Your task to perform on an android device: Search for good pizza restaurants on Maps Image 0: 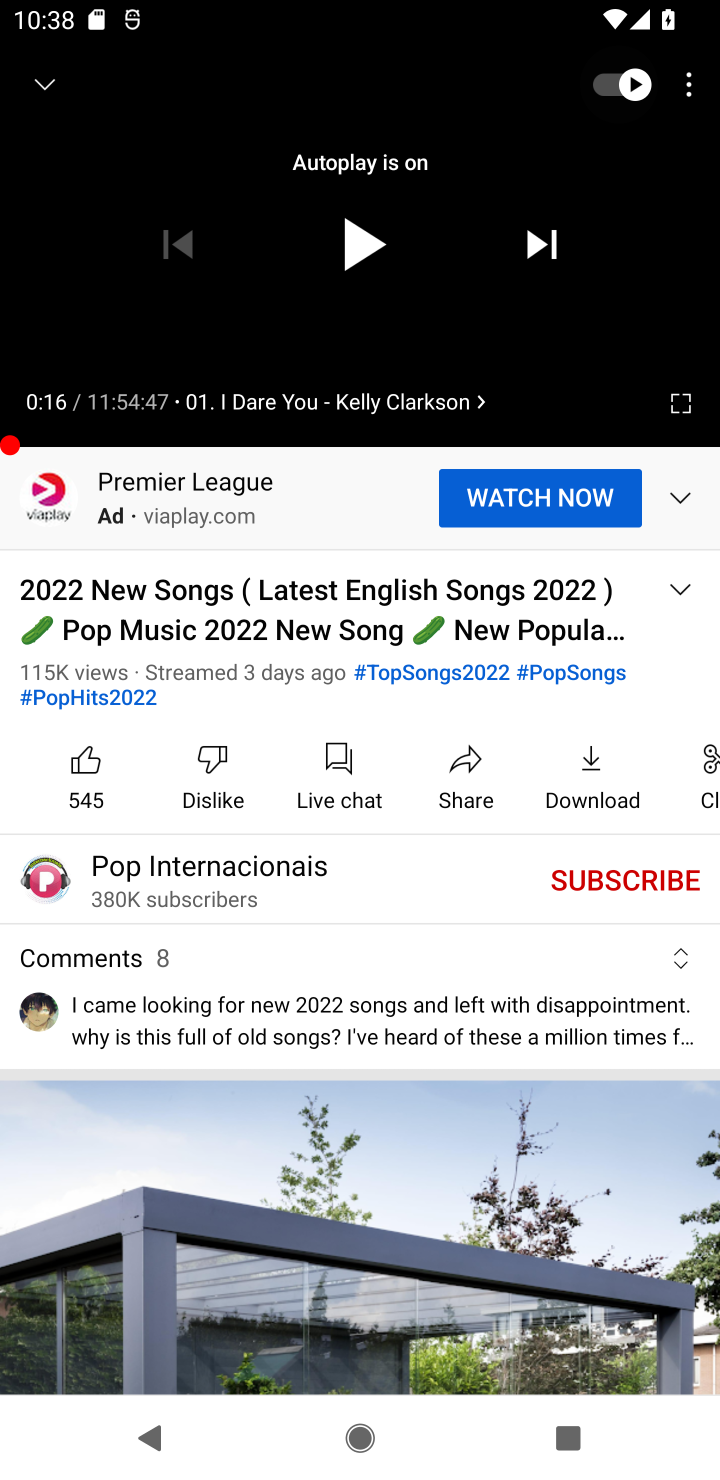
Step 0: press home button
Your task to perform on an android device: Search for good pizza restaurants on Maps Image 1: 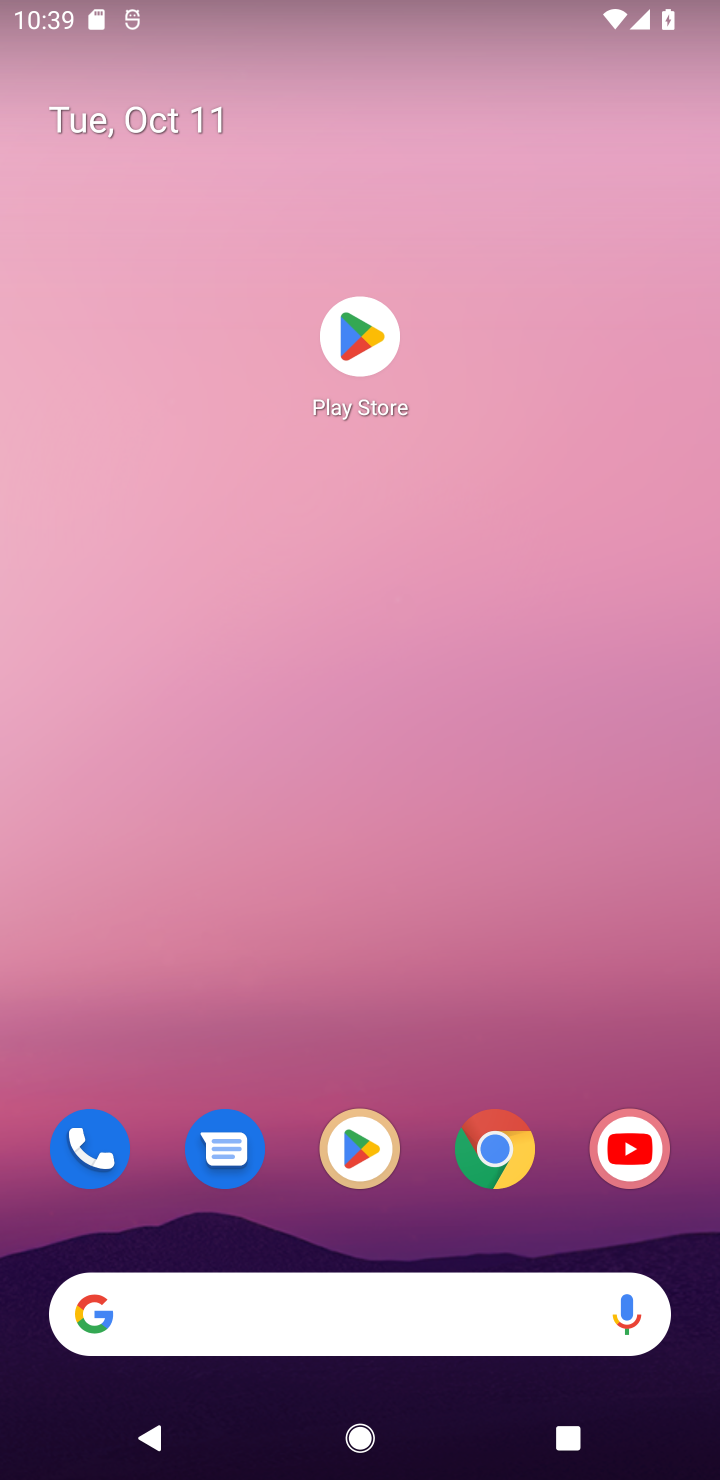
Step 1: drag from (343, 1155) to (413, 109)
Your task to perform on an android device: Search for good pizza restaurants on Maps Image 2: 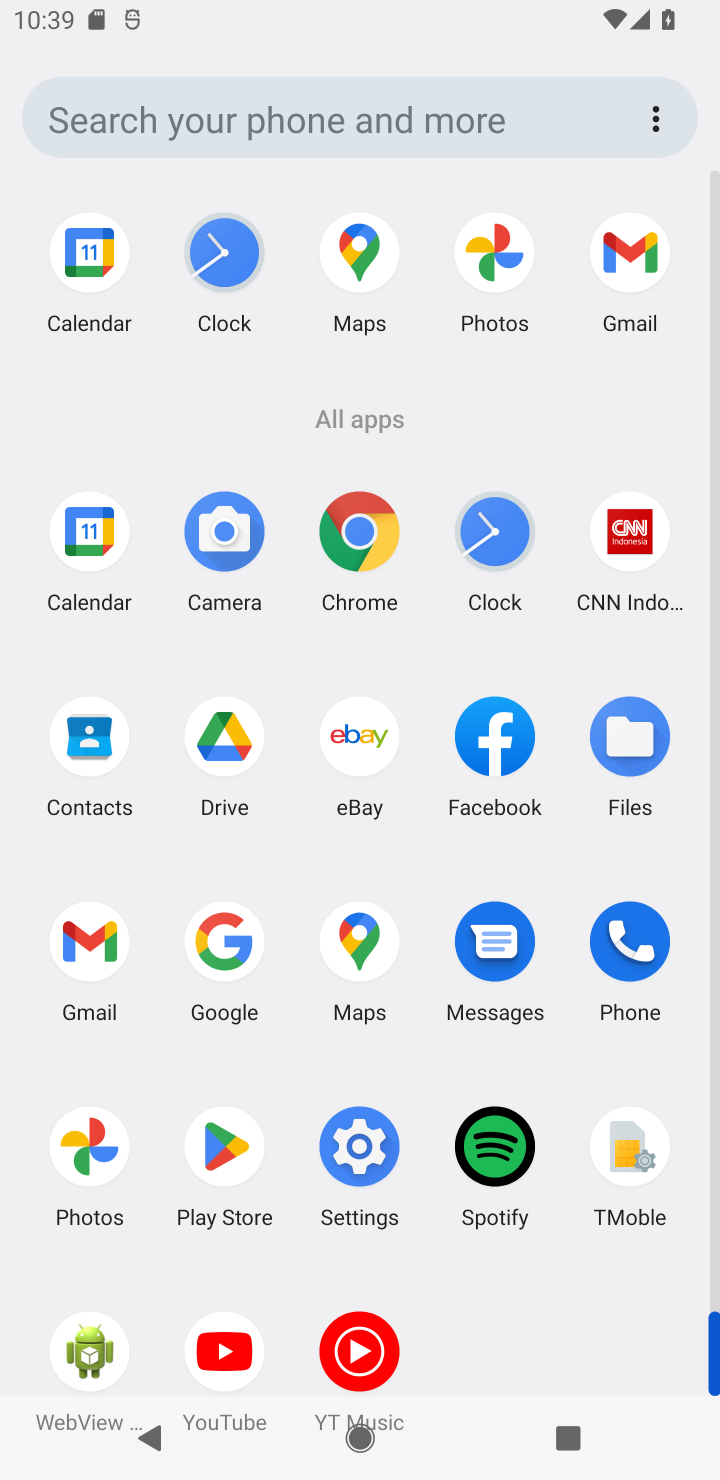
Step 2: click (226, 937)
Your task to perform on an android device: Search for good pizza restaurants on Maps Image 3: 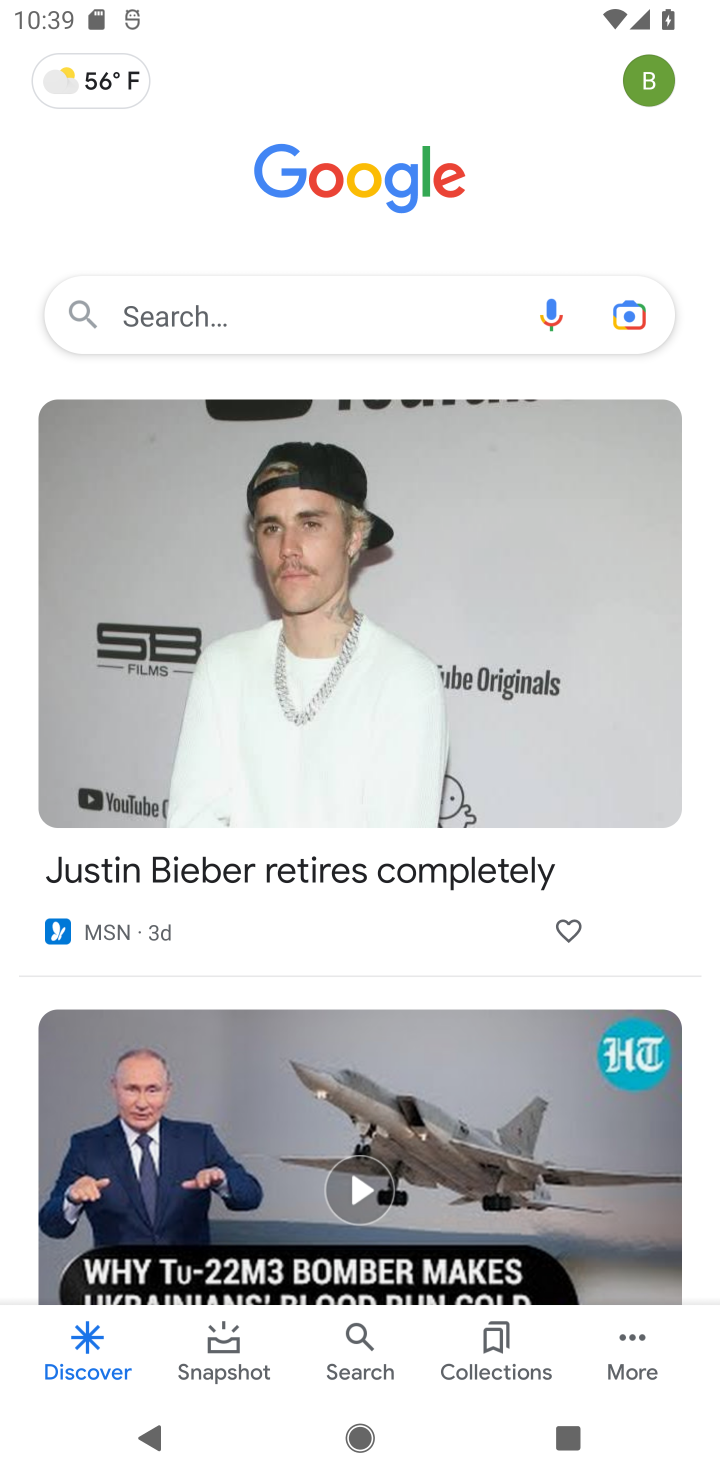
Step 3: press back button
Your task to perform on an android device: Search for good pizza restaurants on Maps Image 4: 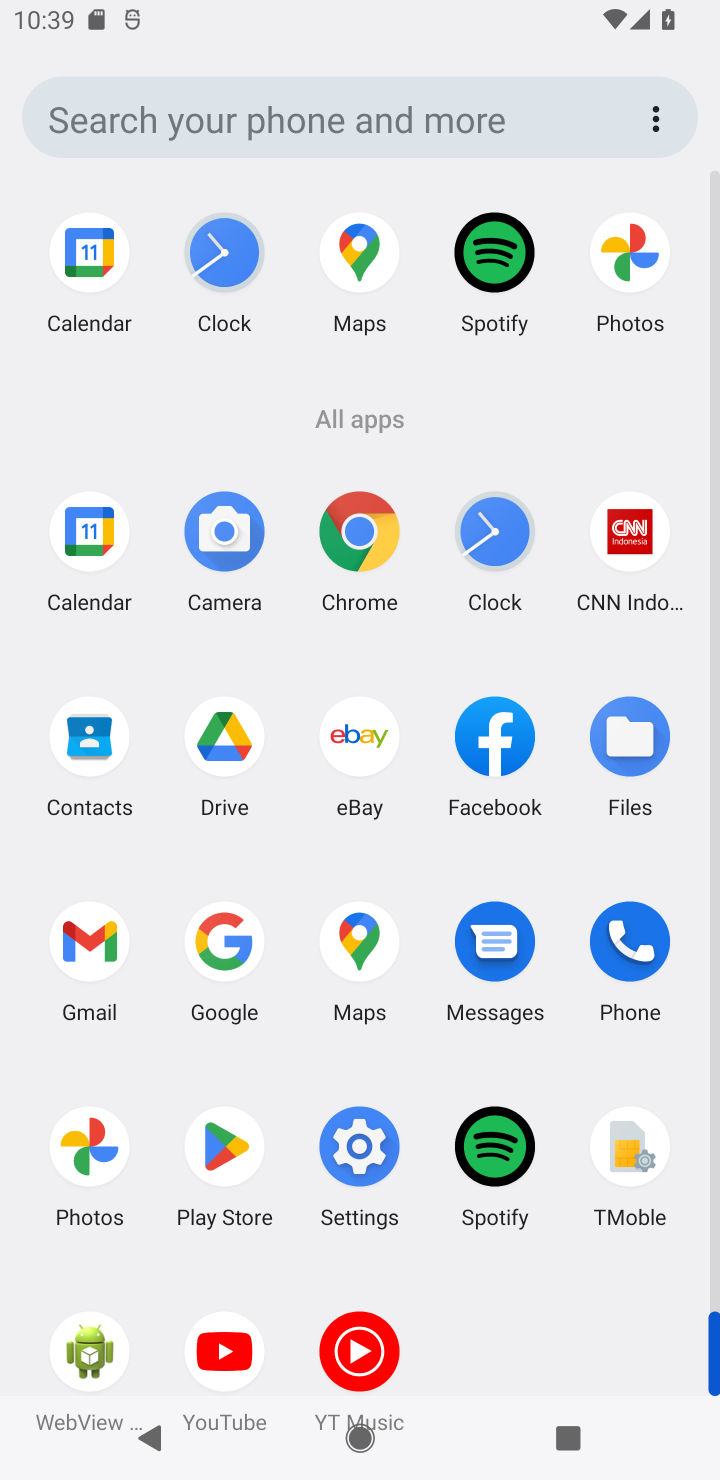
Step 4: click (366, 935)
Your task to perform on an android device: Search for good pizza restaurants on Maps Image 5: 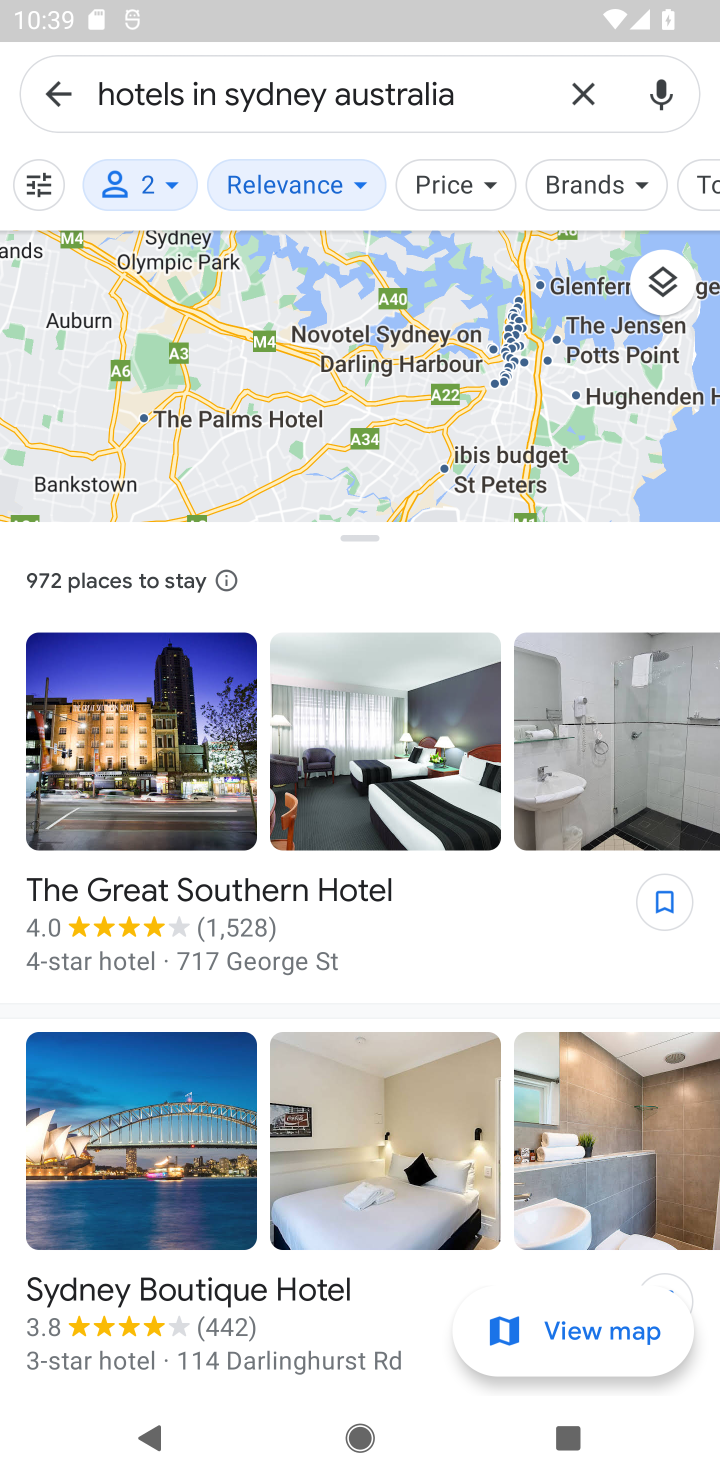
Step 5: click (60, 91)
Your task to perform on an android device: Search for good pizza restaurants on Maps Image 6: 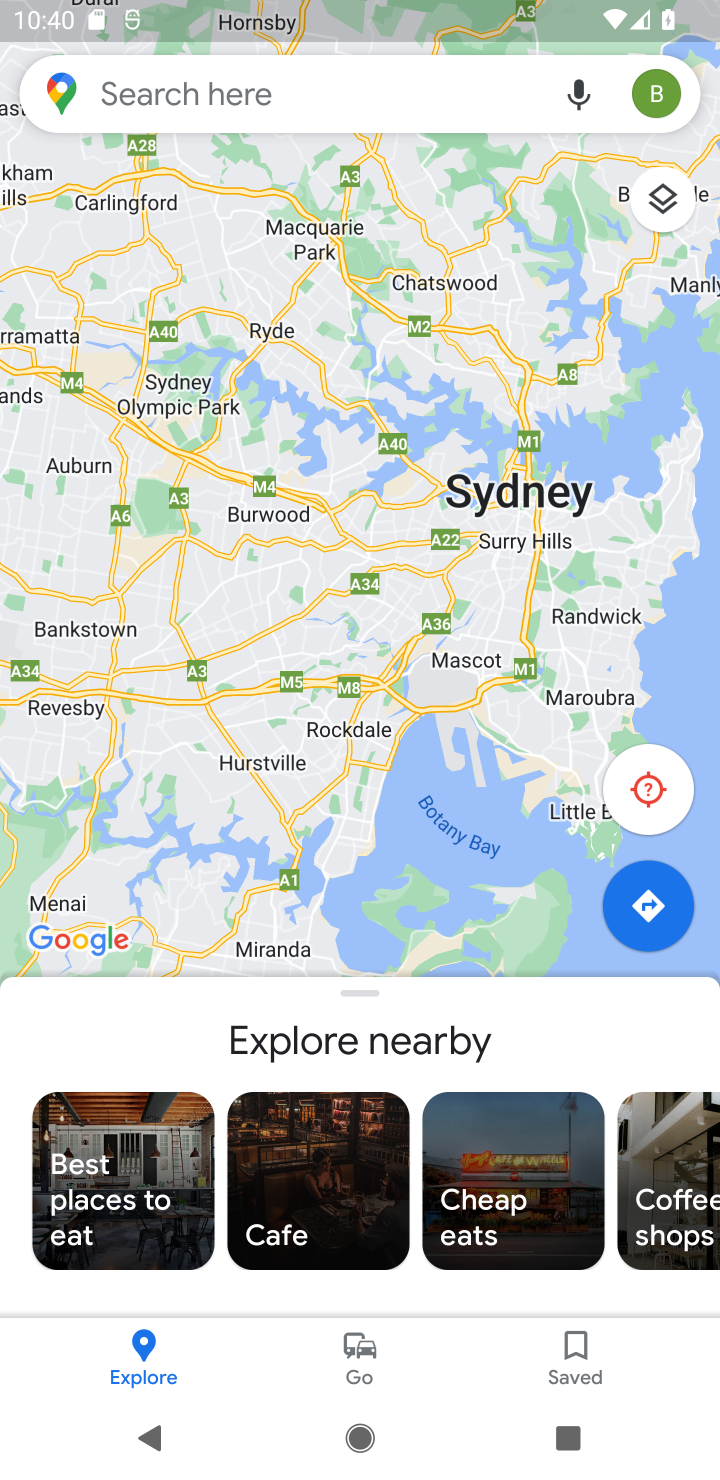
Step 6: click (271, 91)
Your task to perform on an android device: Search for good pizza restaurants on Maps Image 7: 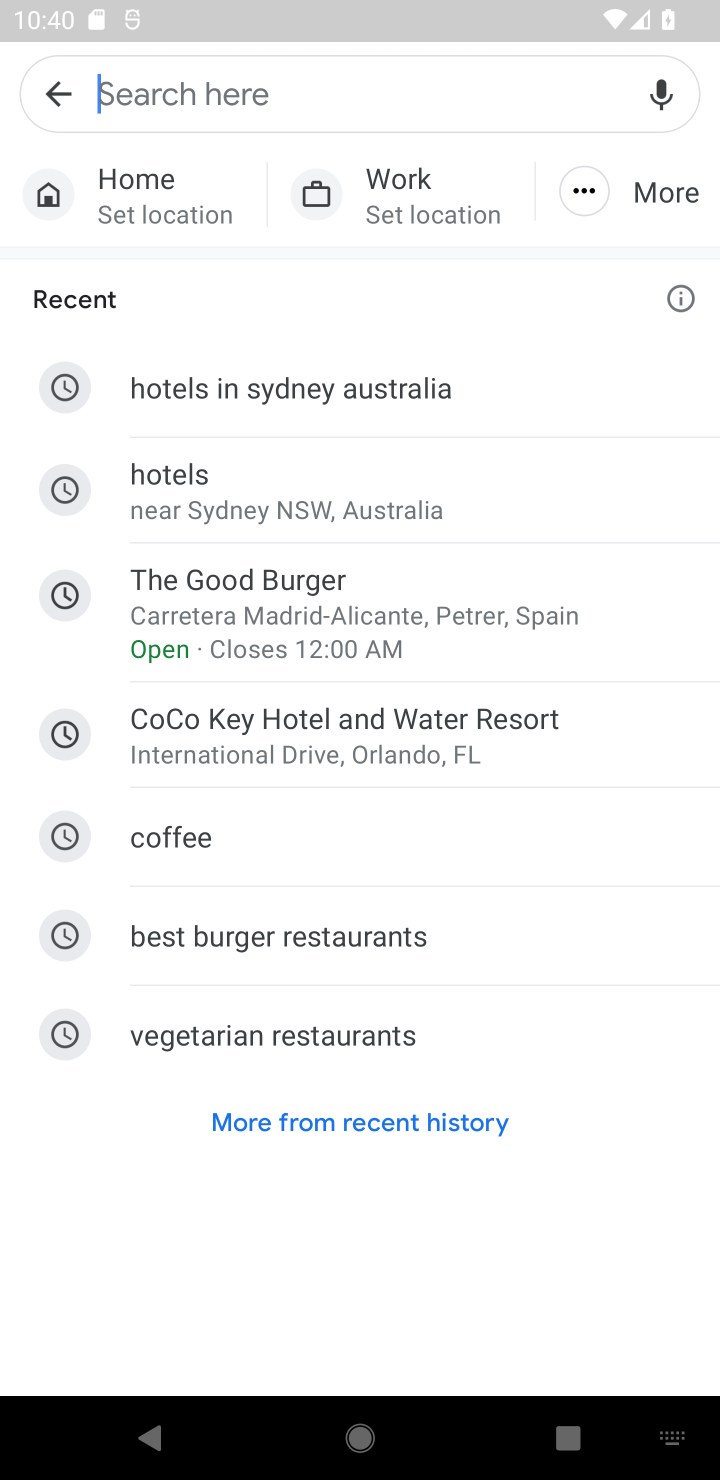
Step 7: type "good pizza restaurants"
Your task to perform on an android device: Search for good pizza restaurants on Maps Image 8: 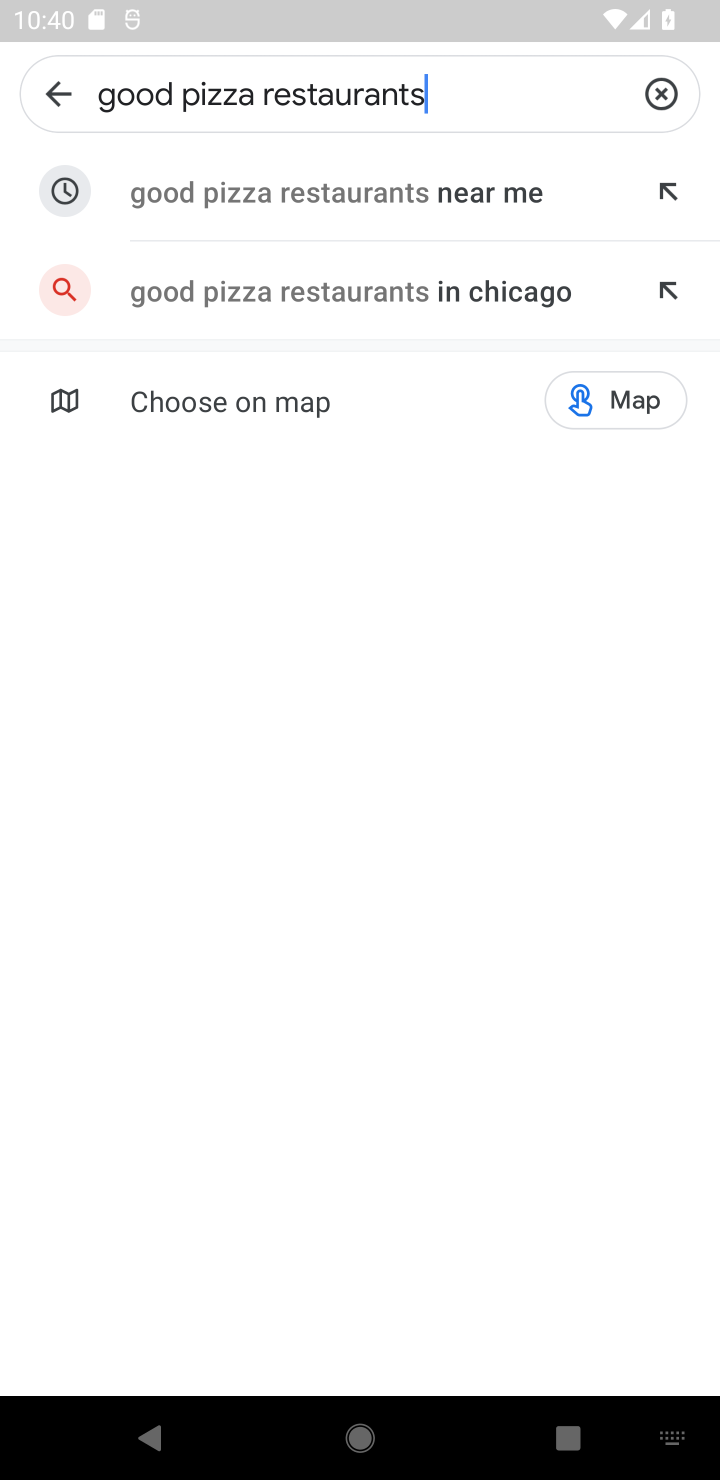
Step 8: click (397, 184)
Your task to perform on an android device: Search for good pizza restaurants on Maps Image 9: 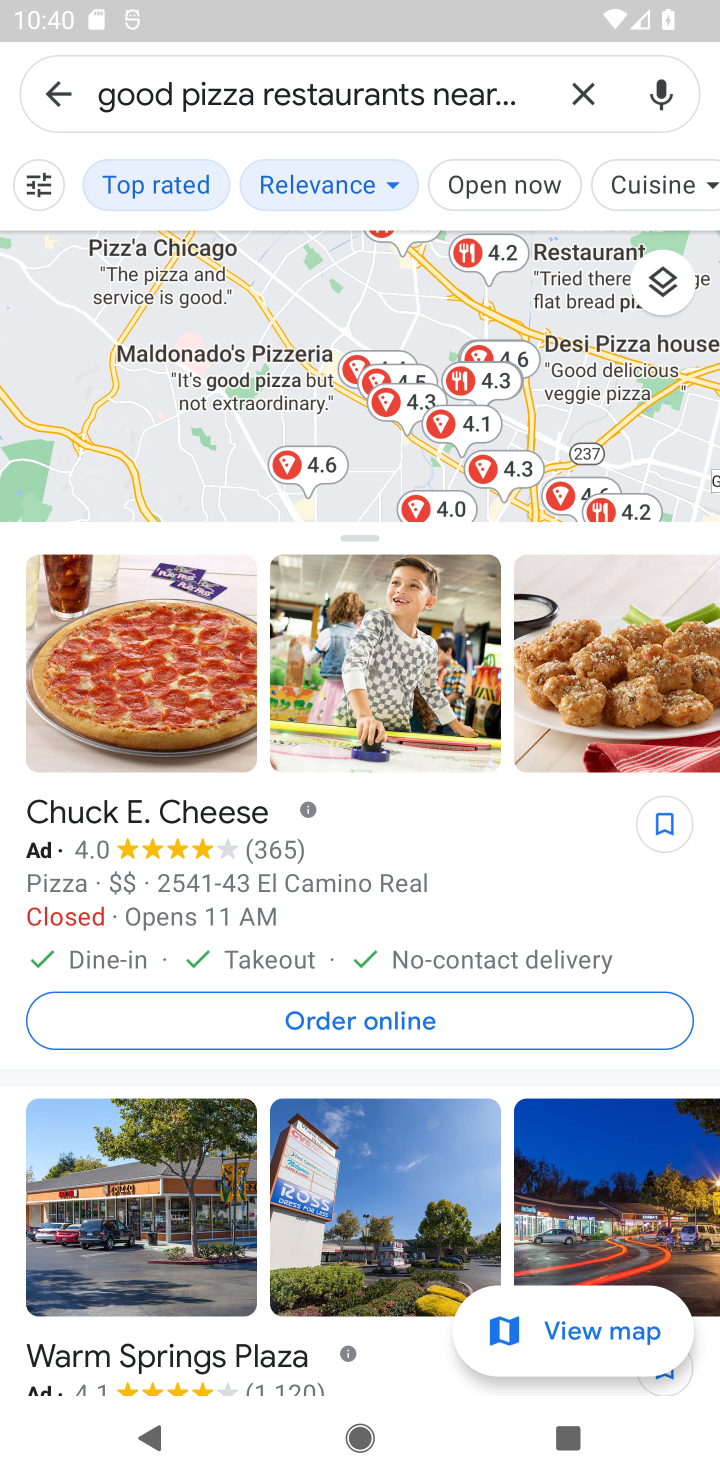
Step 9: task complete